Your task to perform on an android device: Check the news Image 0: 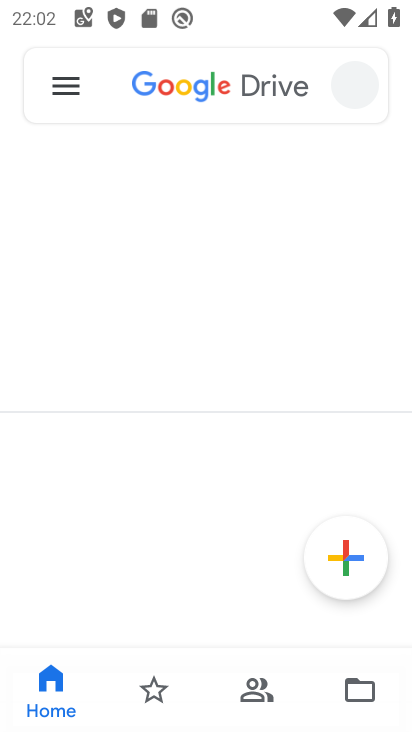
Step 0: press home button
Your task to perform on an android device: Check the news Image 1: 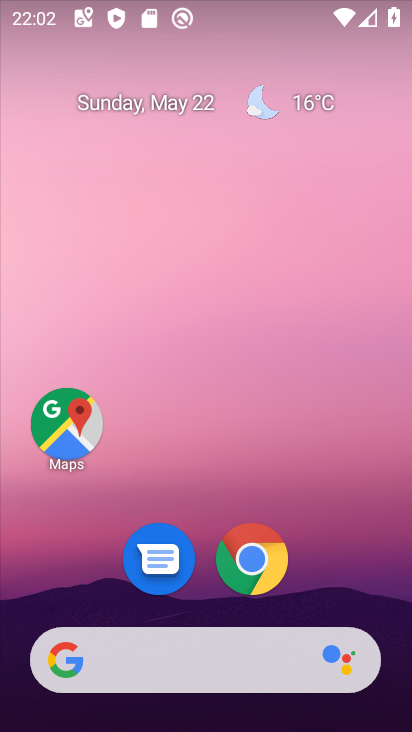
Step 1: drag from (290, 688) to (204, 243)
Your task to perform on an android device: Check the news Image 2: 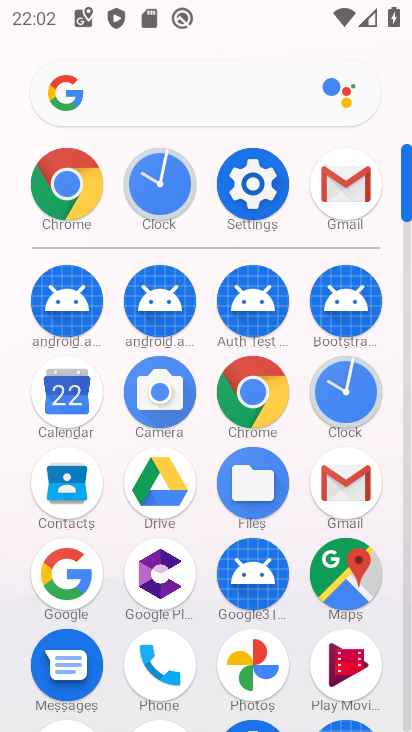
Step 2: click (140, 106)
Your task to perform on an android device: Check the news Image 3: 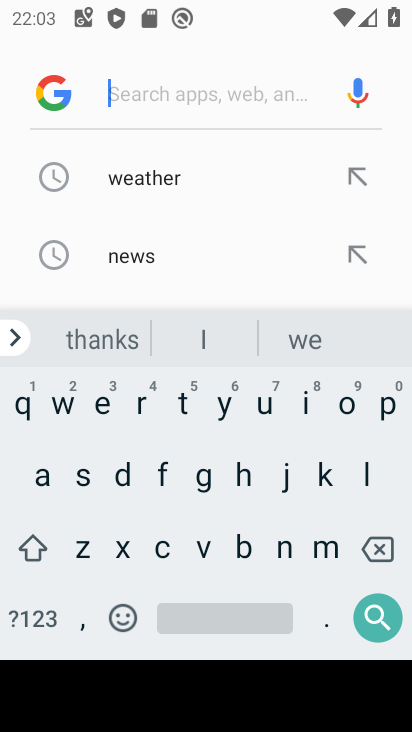
Step 3: click (155, 251)
Your task to perform on an android device: Check the news Image 4: 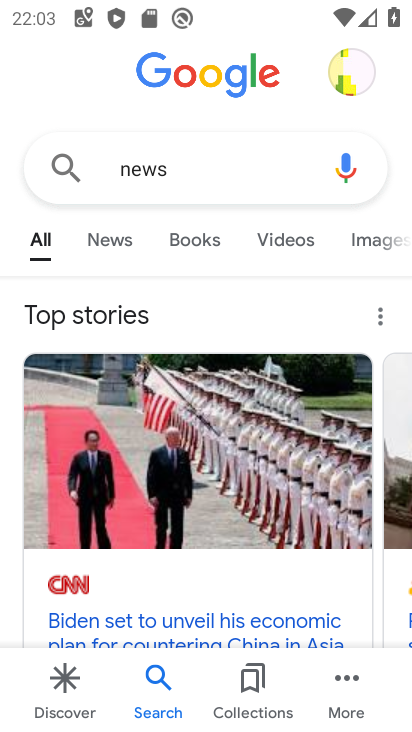
Step 4: task complete